Your task to perform on an android device: empty trash in the gmail app Image 0: 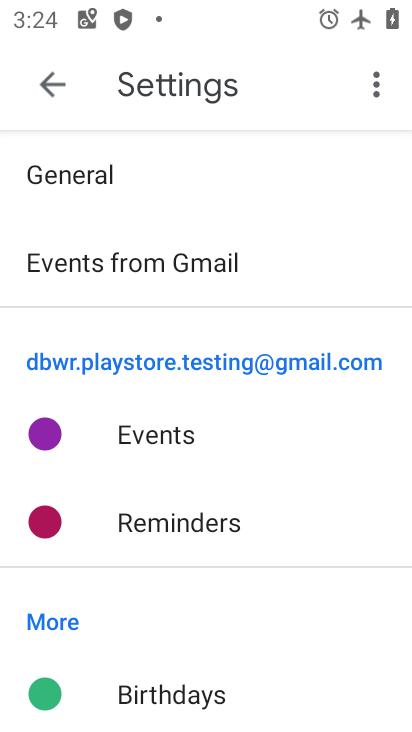
Step 0: press home button
Your task to perform on an android device: empty trash in the gmail app Image 1: 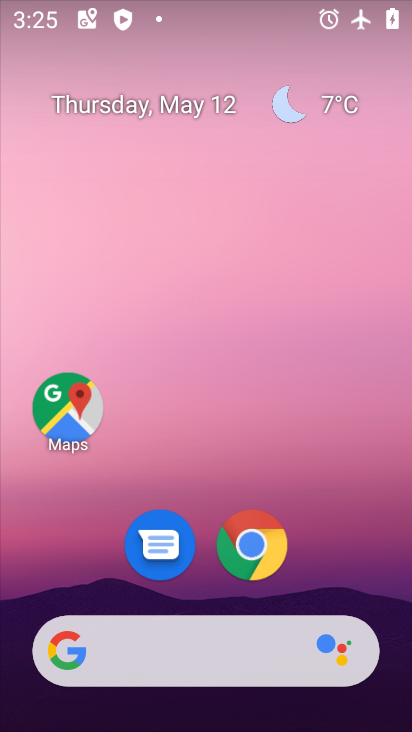
Step 1: drag from (398, 646) to (298, 88)
Your task to perform on an android device: empty trash in the gmail app Image 2: 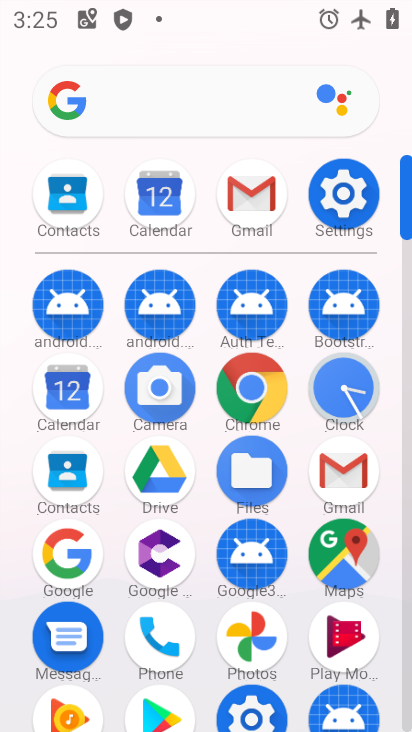
Step 2: click (342, 467)
Your task to perform on an android device: empty trash in the gmail app Image 3: 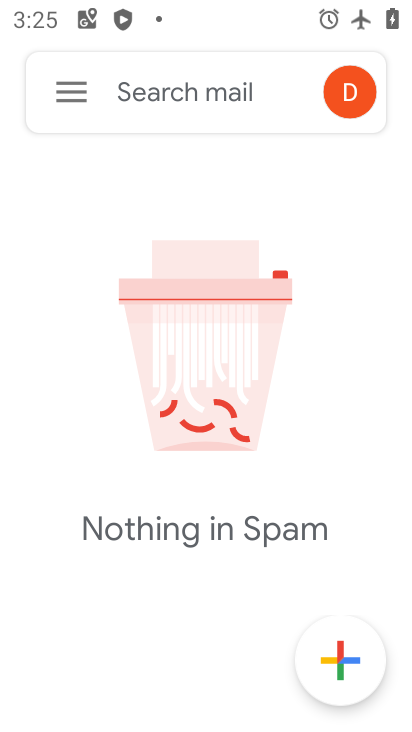
Step 3: click (79, 93)
Your task to perform on an android device: empty trash in the gmail app Image 4: 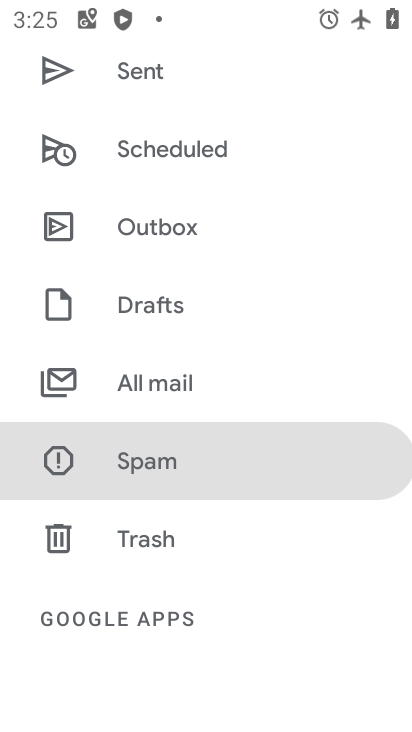
Step 4: click (140, 544)
Your task to perform on an android device: empty trash in the gmail app Image 5: 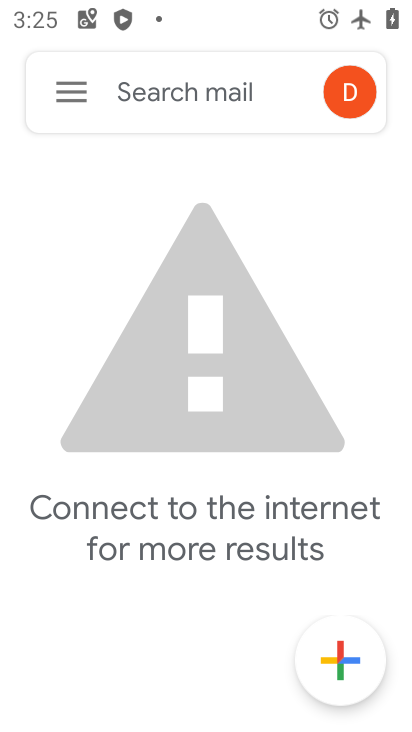
Step 5: task complete